Your task to perform on an android device: Check the news Image 0: 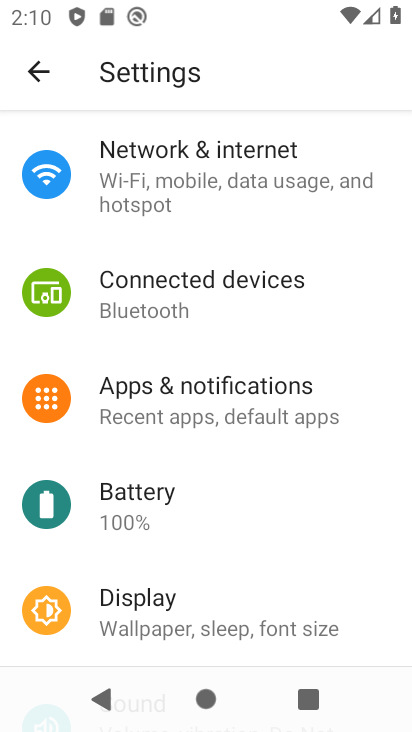
Step 0: press home button
Your task to perform on an android device: Check the news Image 1: 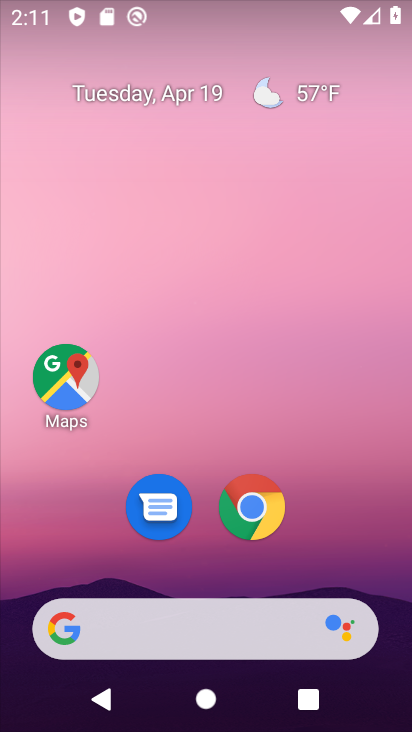
Step 1: drag from (295, 558) to (287, 144)
Your task to perform on an android device: Check the news Image 2: 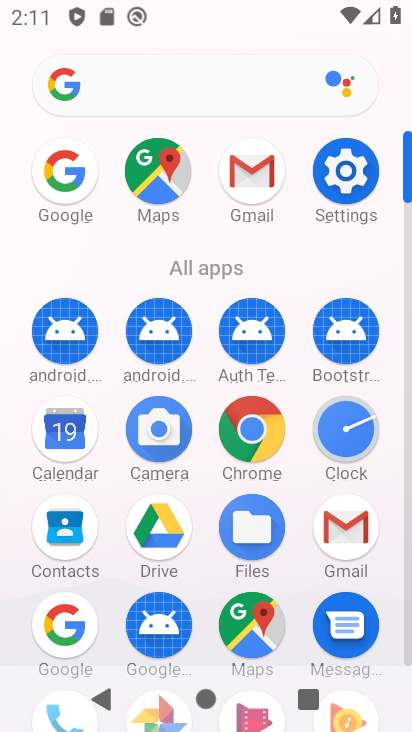
Step 2: click (66, 621)
Your task to perform on an android device: Check the news Image 3: 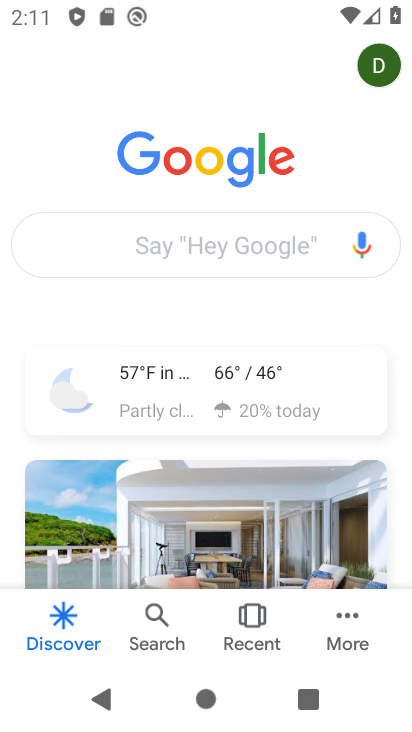
Step 3: click (193, 242)
Your task to perform on an android device: Check the news Image 4: 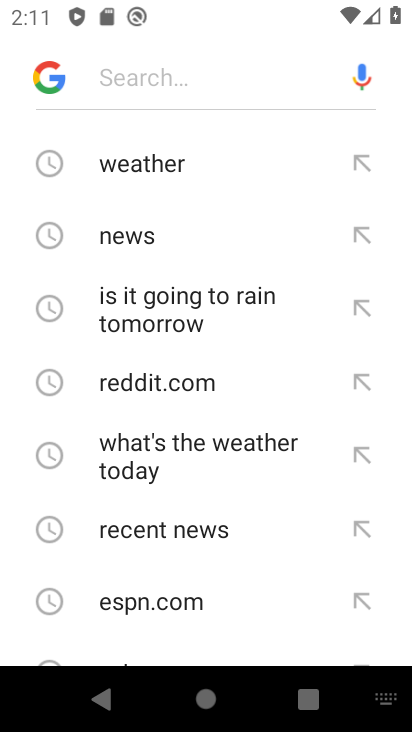
Step 4: click (160, 237)
Your task to perform on an android device: Check the news Image 5: 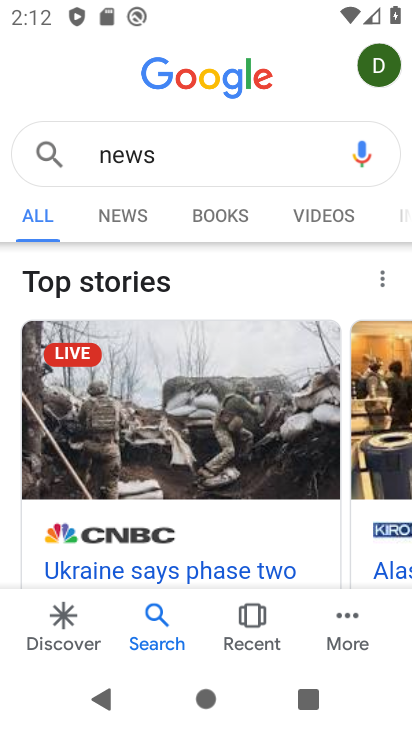
Step 5: task complete